Your task to perform on an android device: What's the weather going to be this weekend? Image 0: 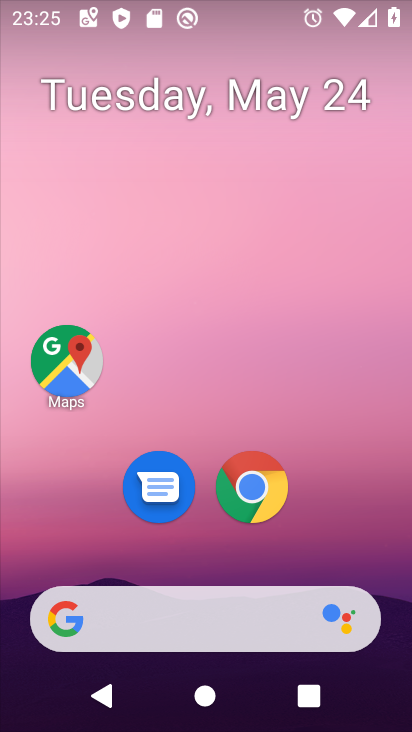
Step 0: click (147, 599)
Your task to perform on an android device: What's the weather going to be this weekend? Image 1: 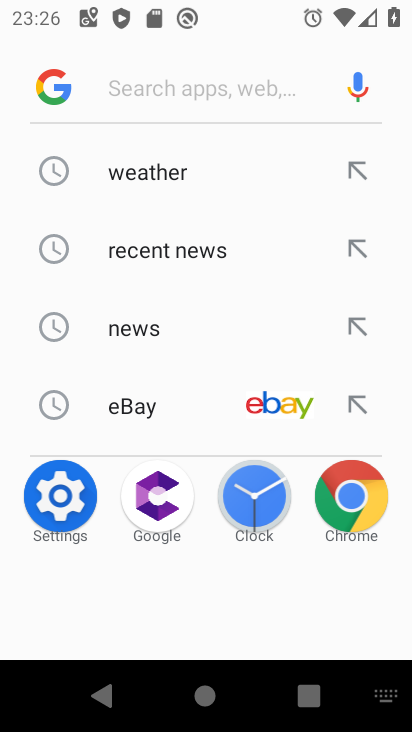
Step 1: click (158, 181)
Your task to perform on an android device: What's the weather going to be this weekend? Image 2: 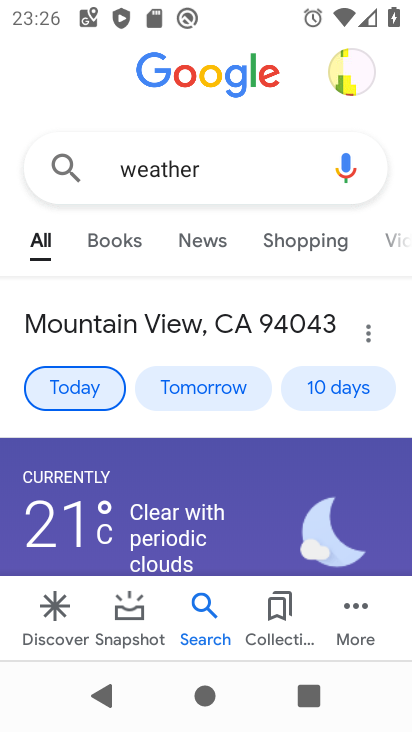
Step 2: click (349, 374)
Your task to perform on an android device: What's the weather going to be this weekend? Image 3: 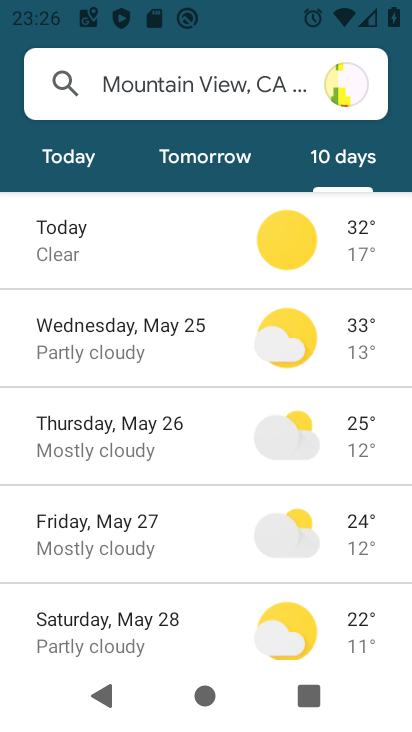
Step 3: task complete